Your task to perform on an android device: Is it going to rain tomorrow? Image 0: 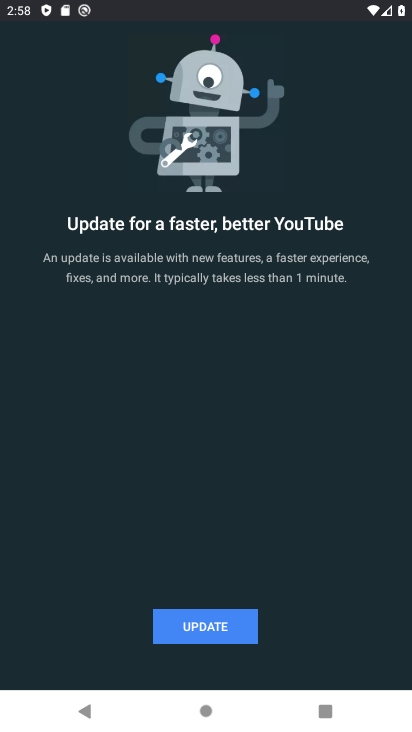
Step 0: drag from (264, 691) to (179, 542)
Your task to perform on an android device: Is it going to rain tomorrow? Image 1: 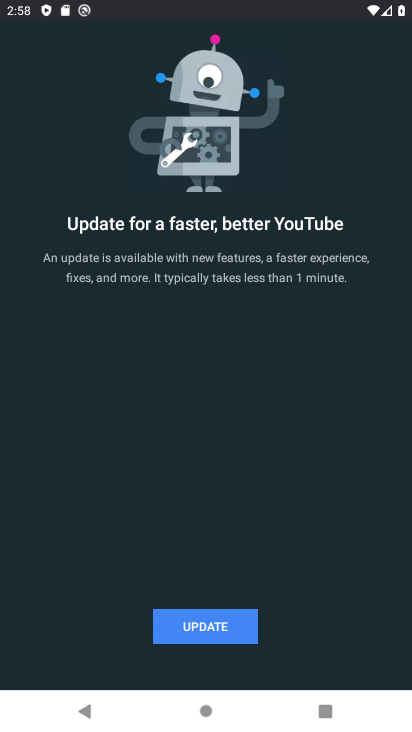
Step 1: press home button
Your task to perform on an android device: Is it going to rain tomorrow? Image 2: 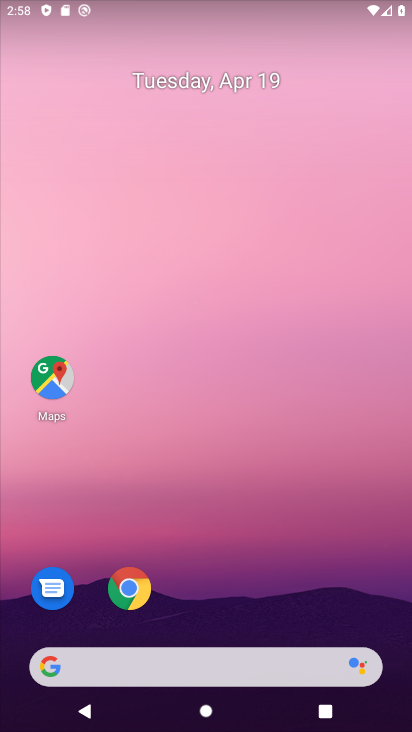
Step 2: drag from (244, 675) to (237, 274)
Your task to perform on an android device: Is it going to rain tomorrow? Image 3: 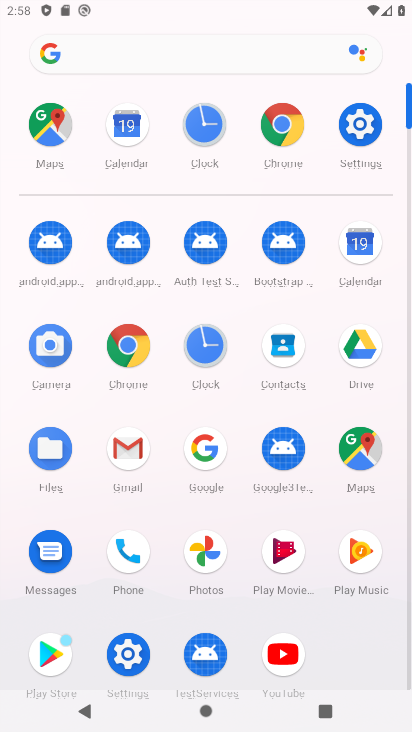
Step 3: click (118, 54)
Your task to perform on an android device: Is it going to rain tomorrow? Image 4: 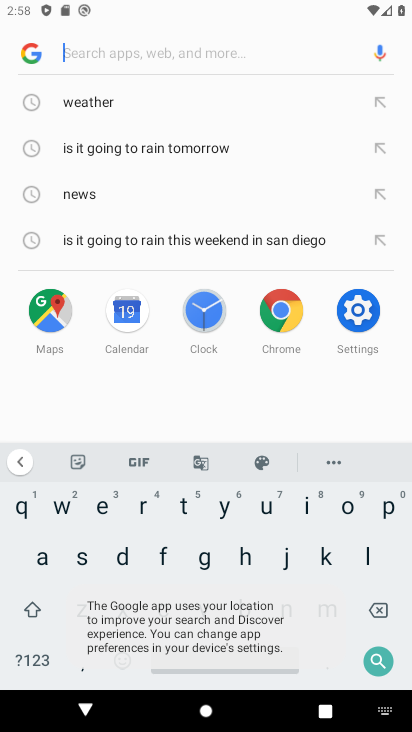
Step 4: click (129, 107)
Your task to perform on an android device: Is it going to rain tomorrow? Image 5: 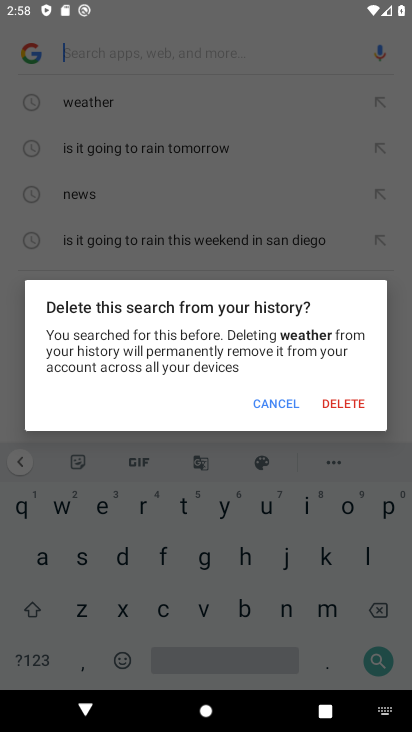
Step 5: click (283, 401)
Your task to perform on an android device: Is it going to rain tomorrow? Image 6: 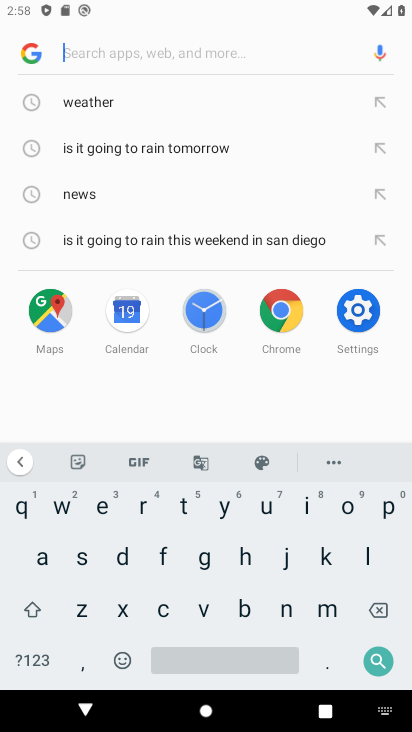
Step 6: click (112, 117)
Your task to perform on an android device: Is it going to rain tomorrow? Image 7: 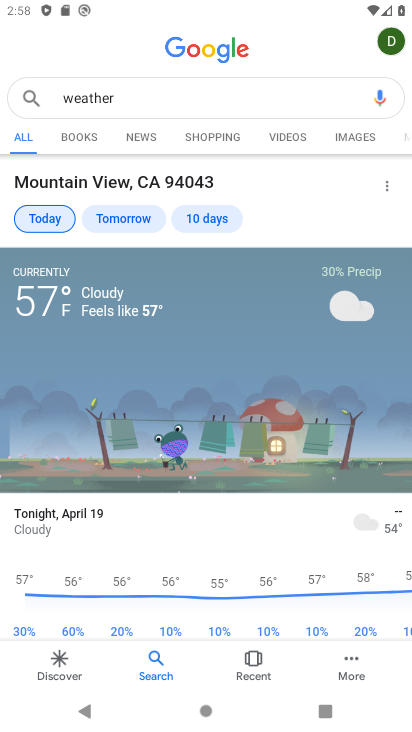
Step 7: click (118, 227)
Your task to perform on an android device: Is it going to rain tomorrow? Image 8: 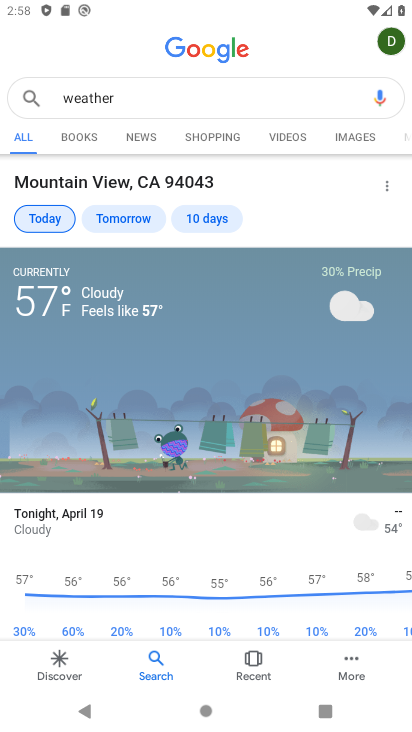
Step 8: click (112, 223)
Your task to perform on an android device: Is it going to rain tomorrow? Image 9: 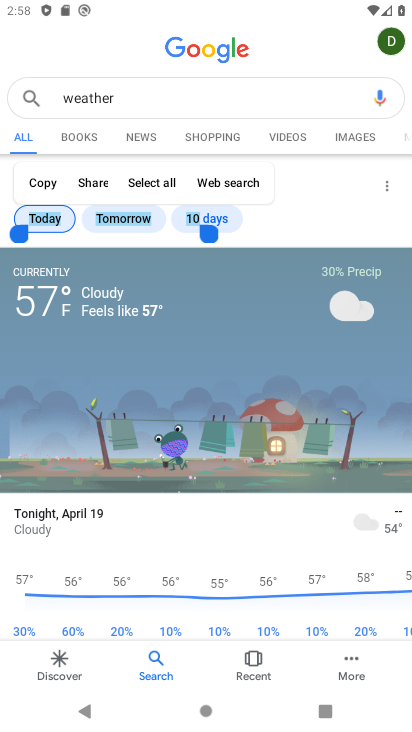
Step 9: click (111, 222)
Your task to perform on an android device: Is it going to rain tomorrow? Image 10: 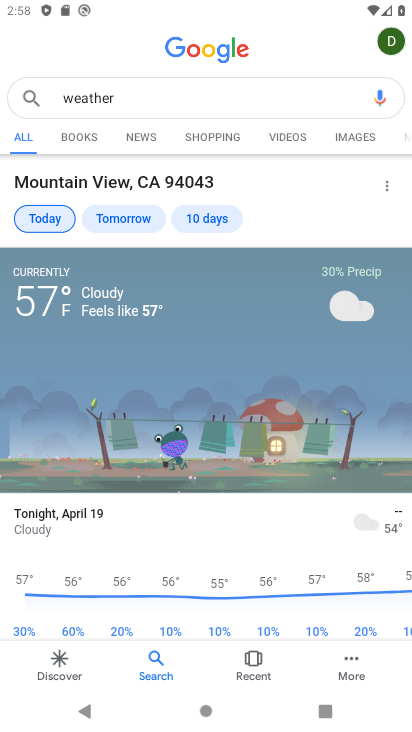
Step 10: click (137, 210)
Your task to perform on an android device: Is it going to rain tomorrow? Image 11: 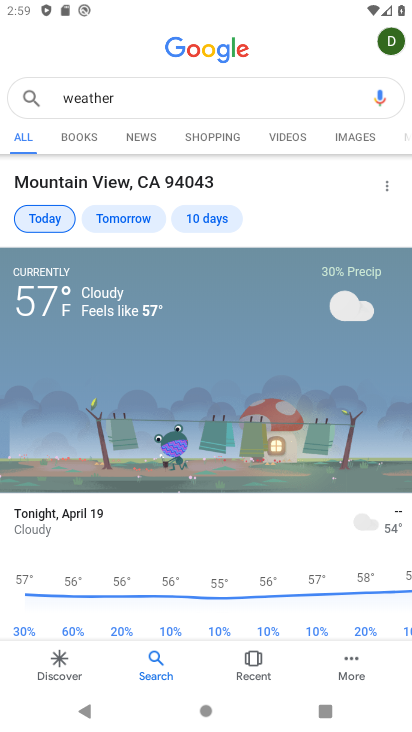
Step 11: click (130, 222)
Your task to perform on an android device: Is it going to rain tomorrow? Image 12: 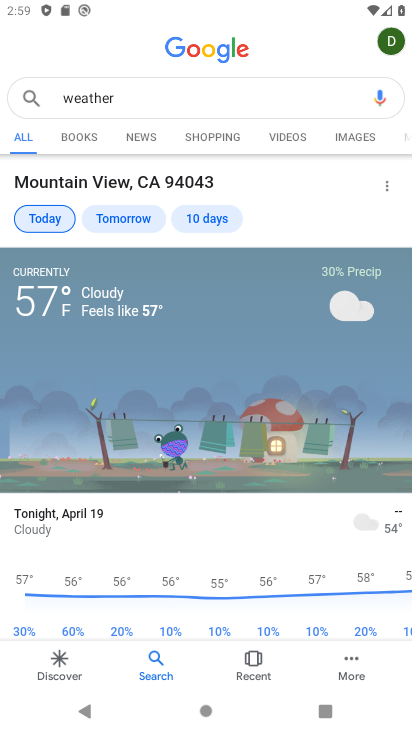
Step 12: click (108, 357)
Your task to perform on an android device: Is it going to rain tomorrow? Image 13: 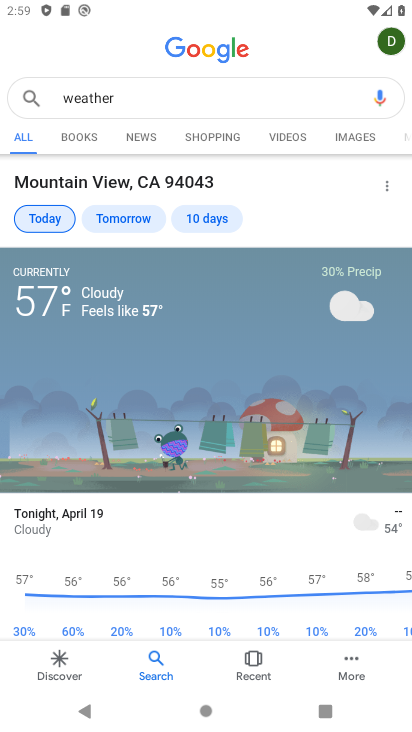
Step 13: task complete